Your task to perform on an android device: Add "dell xps" to the cart on newegg.com Image 0: 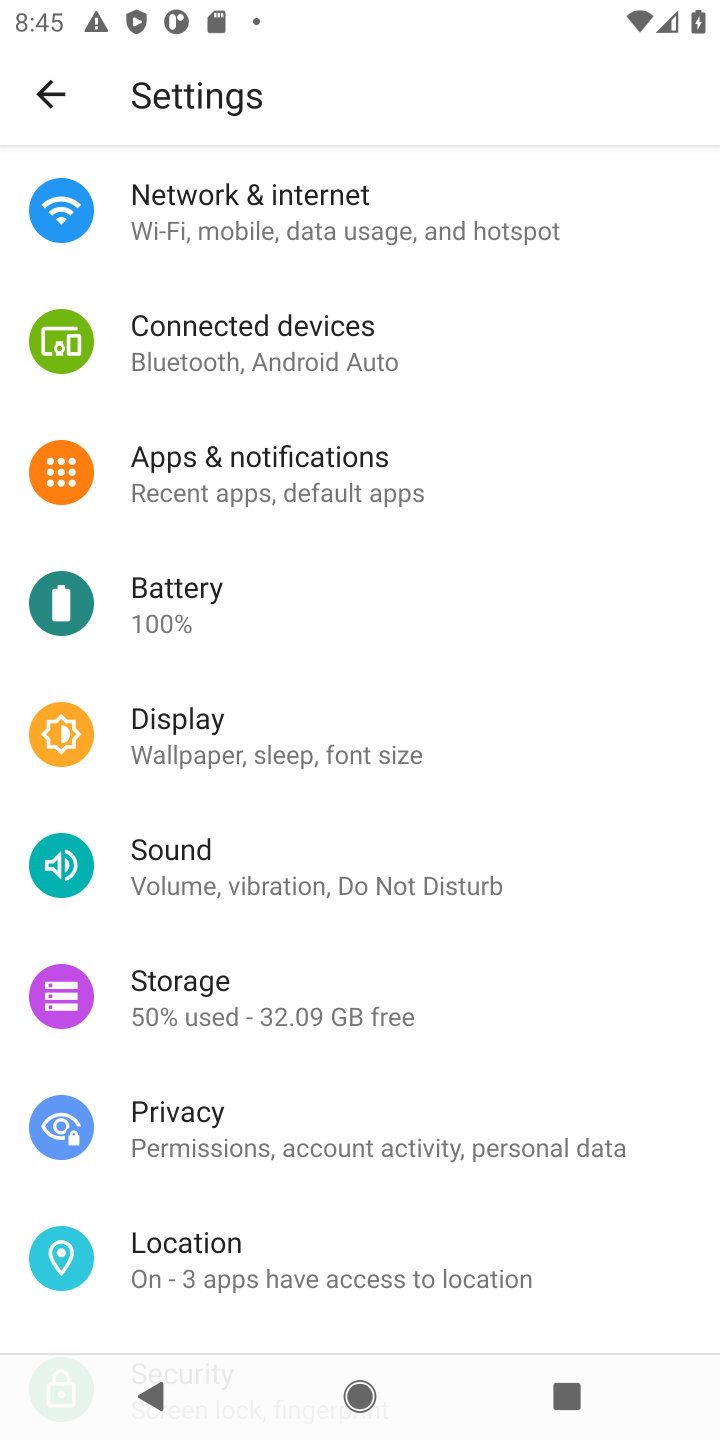
Step 0: press home button
Your task to perform on an android device: Add "dell xps" to the cart on newegg.com Image 1: 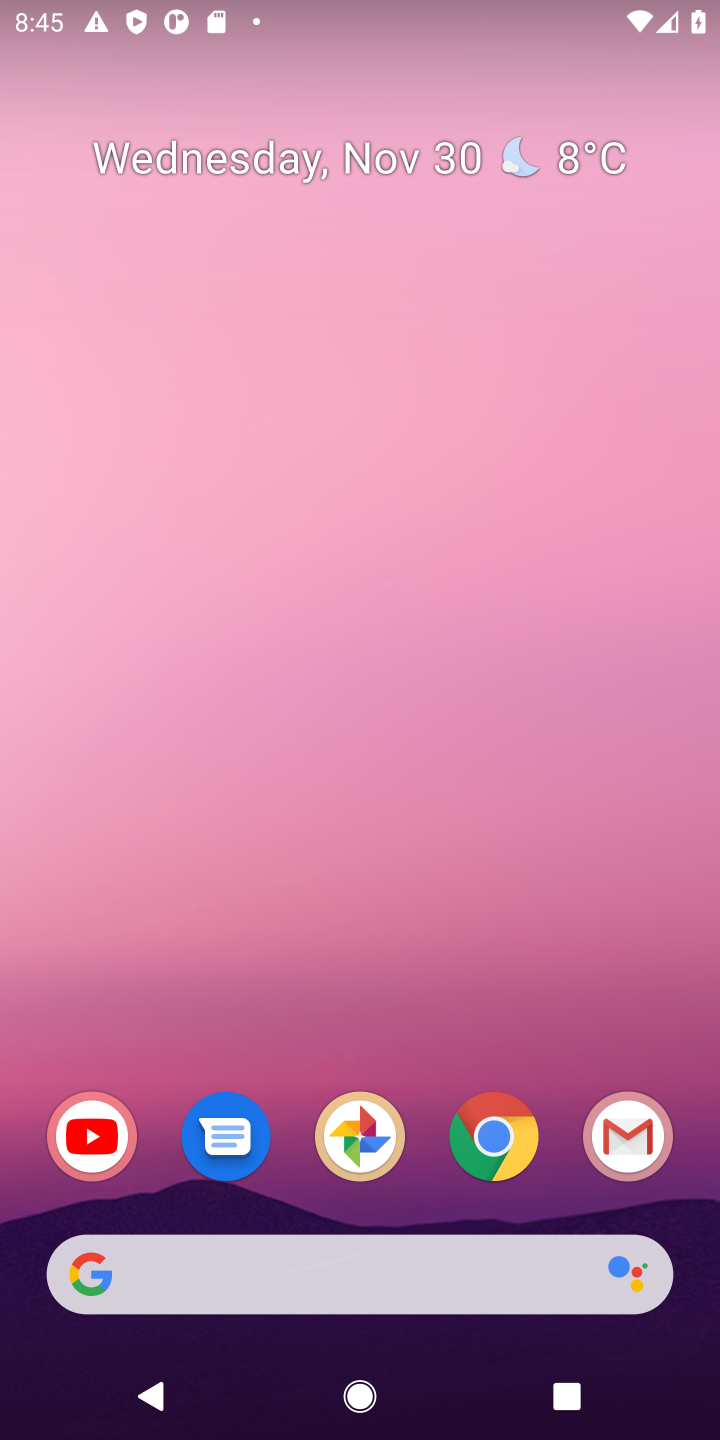
Step 1: click (504, 1145)
Your task to perform on an android device: Add "dell xps" to the cart on newegg.com Image 2: 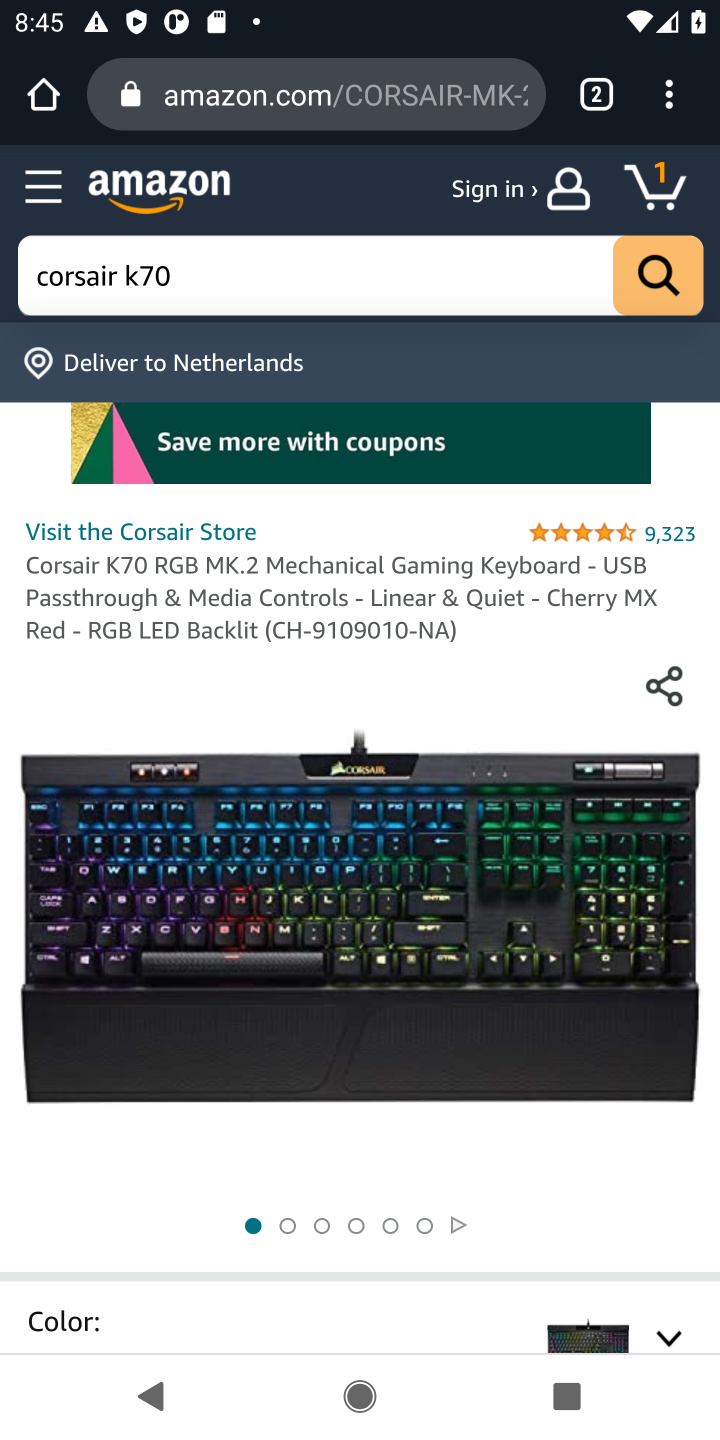
Step 2: click (292, 95)
Your task to perform on an android device: Add "dell xps" to the cart on newegg.com Image 3: 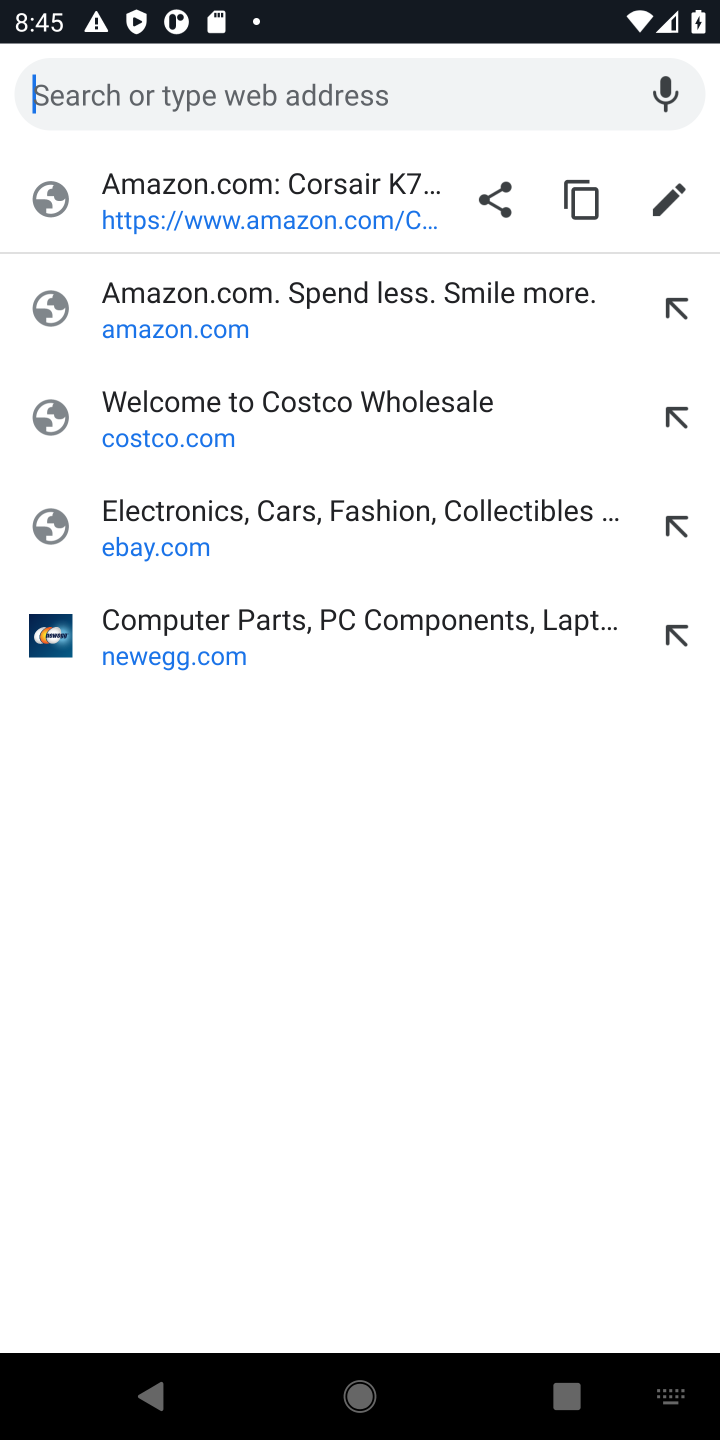
Step 3: click (122, 621)
Your task to perform on an android device: Add "dell xps" to the cart on newegg.com Image 4: 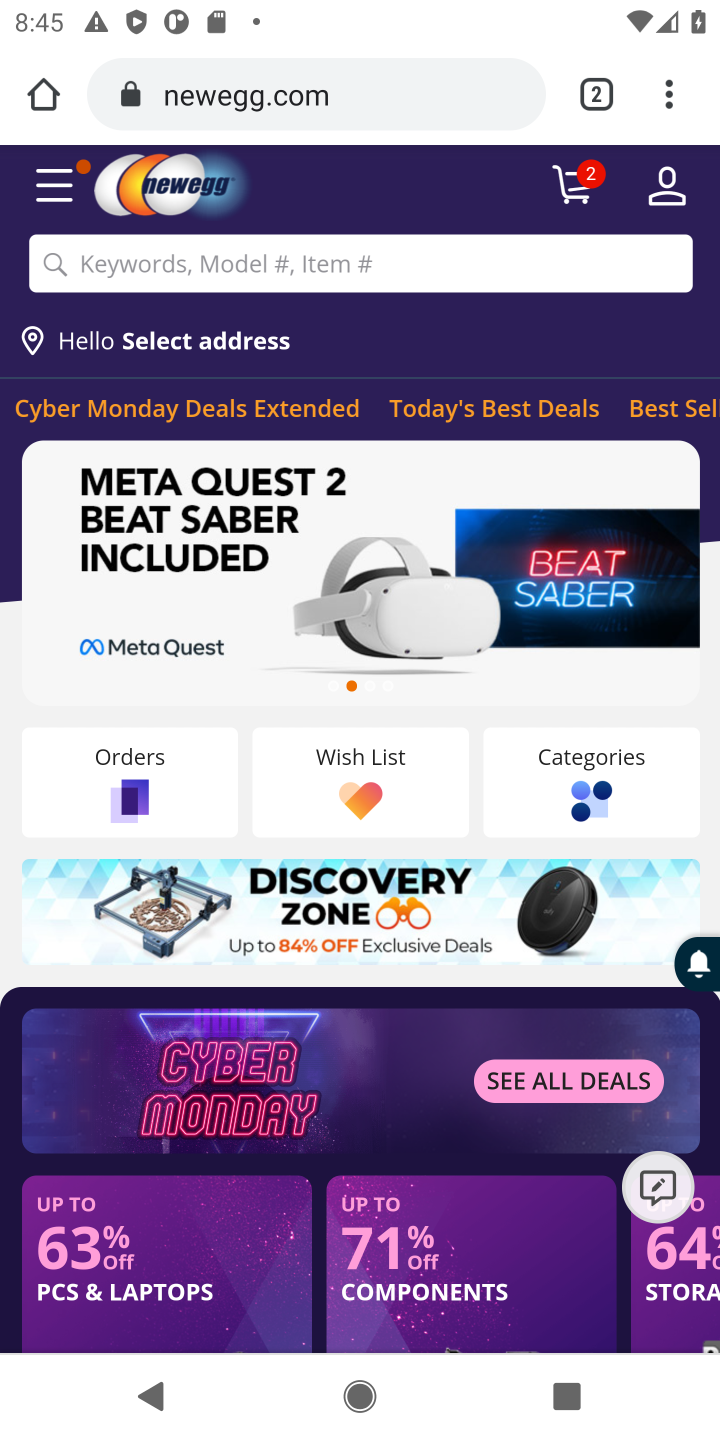
Step 4: click (291, 285)
Your task to perform on an android device: Add "dell xps" to the cart on newegg.com Image 5: 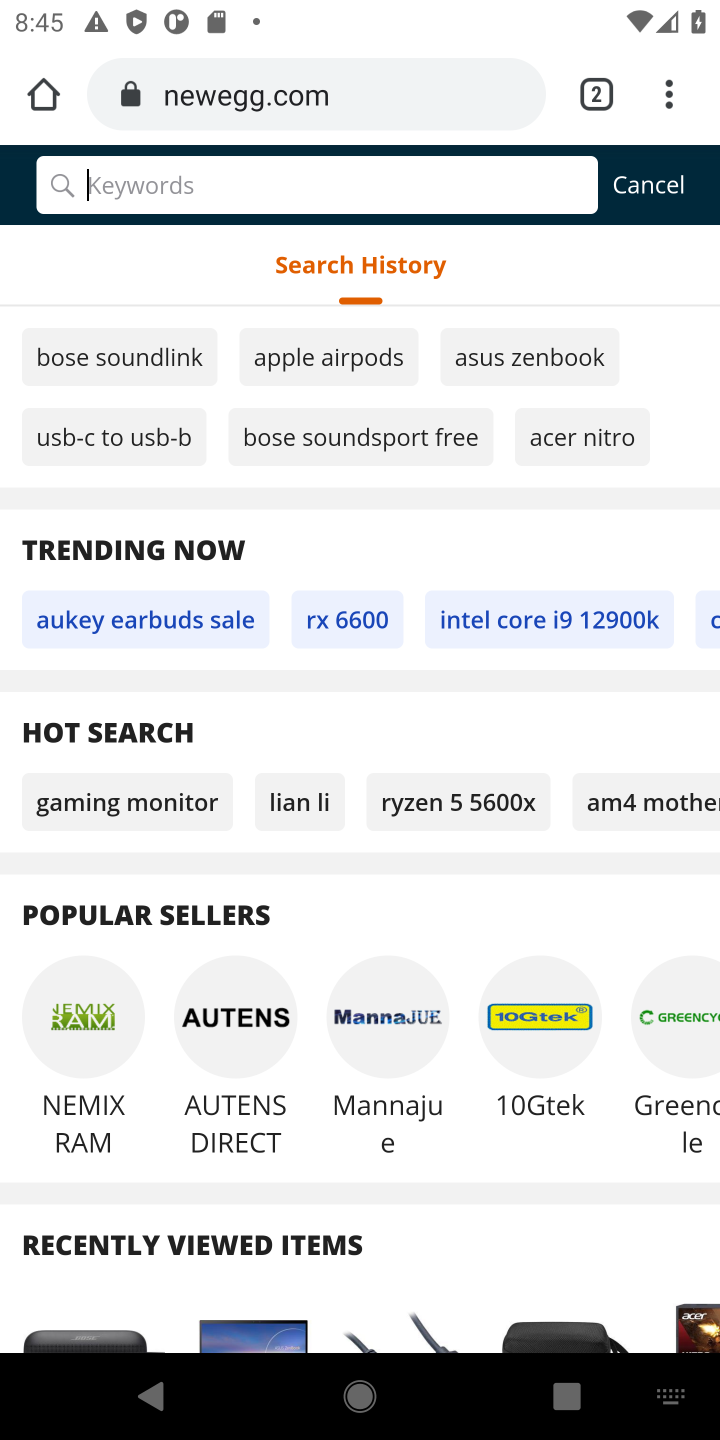
Step 5: type "dell xps"
Your task to perform on an android device: Add "dell xps" to the cart on newegg.com Image 6: 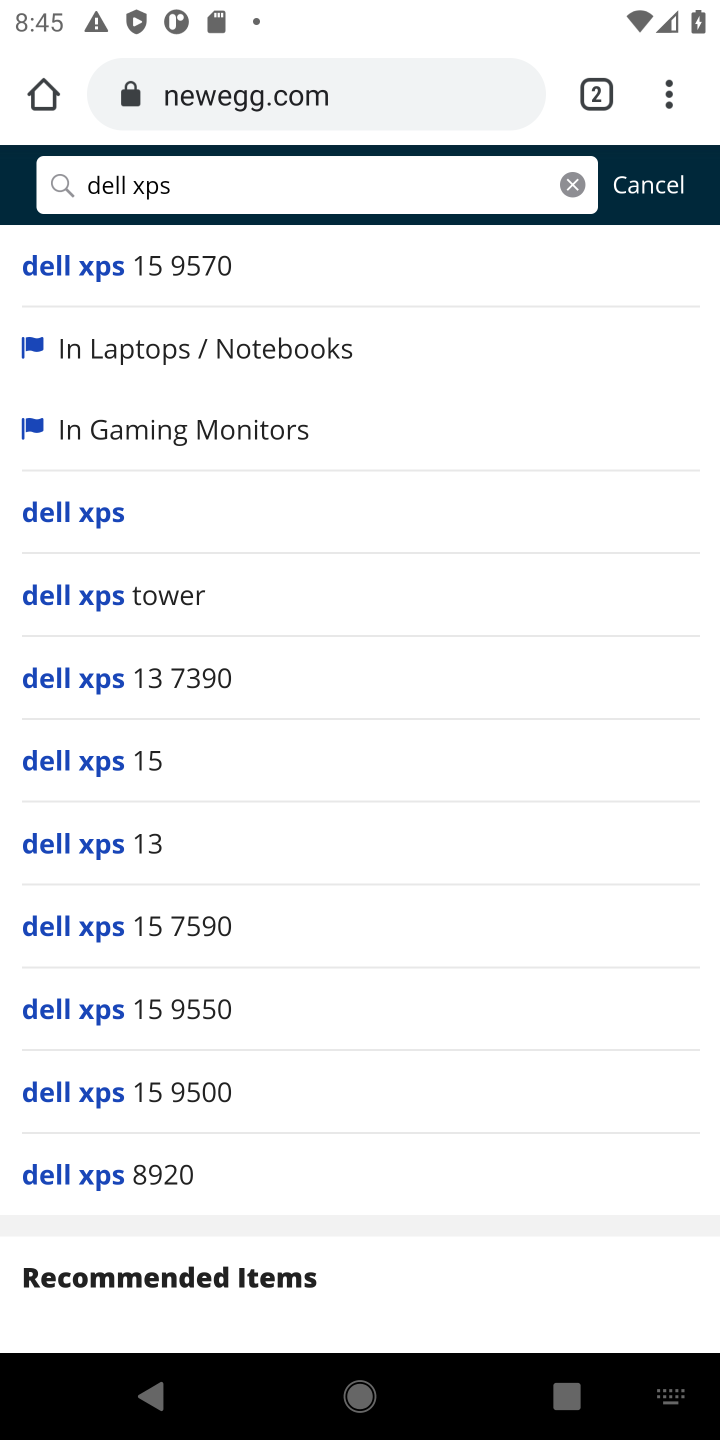
Step 6: click (96, 520)
Your task to perform on an android device: Add "dell xps" to the cart on newegg.com Image 7: 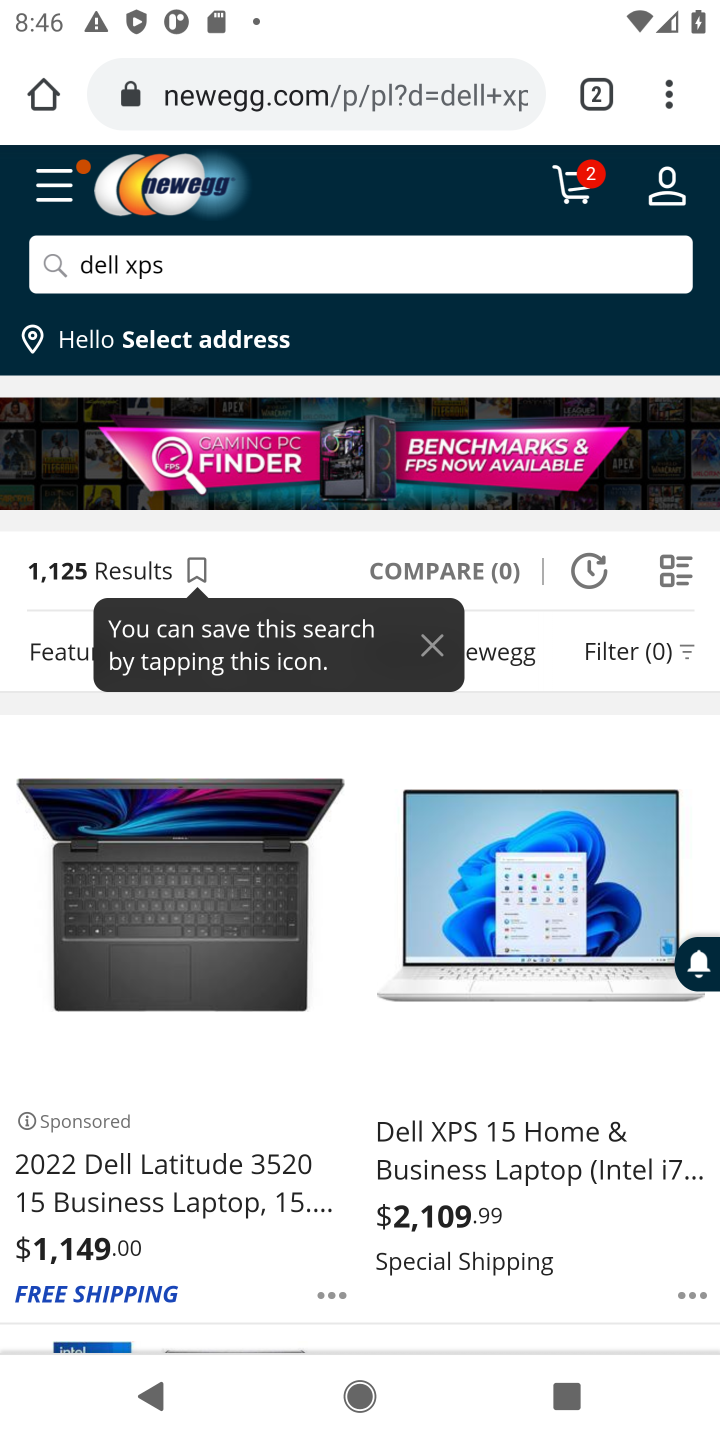
Step 7: click (482, 949)
Your task to perform on an android device: Add "dell xps" to the cart on newegg.com Image 8: 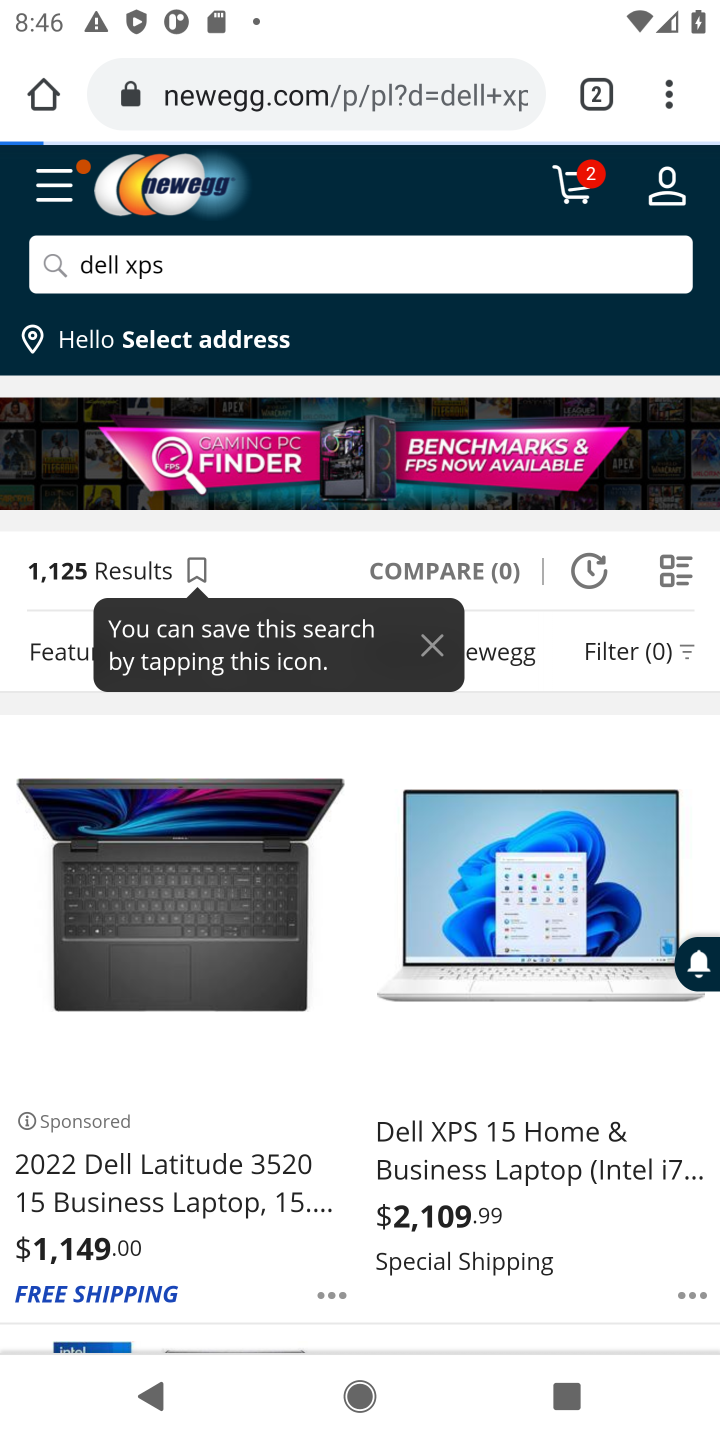
Step 8: click (436, 1148)
Your task to perform on an android device: Add "dell xps" to the cart on newegg.com Image 9: 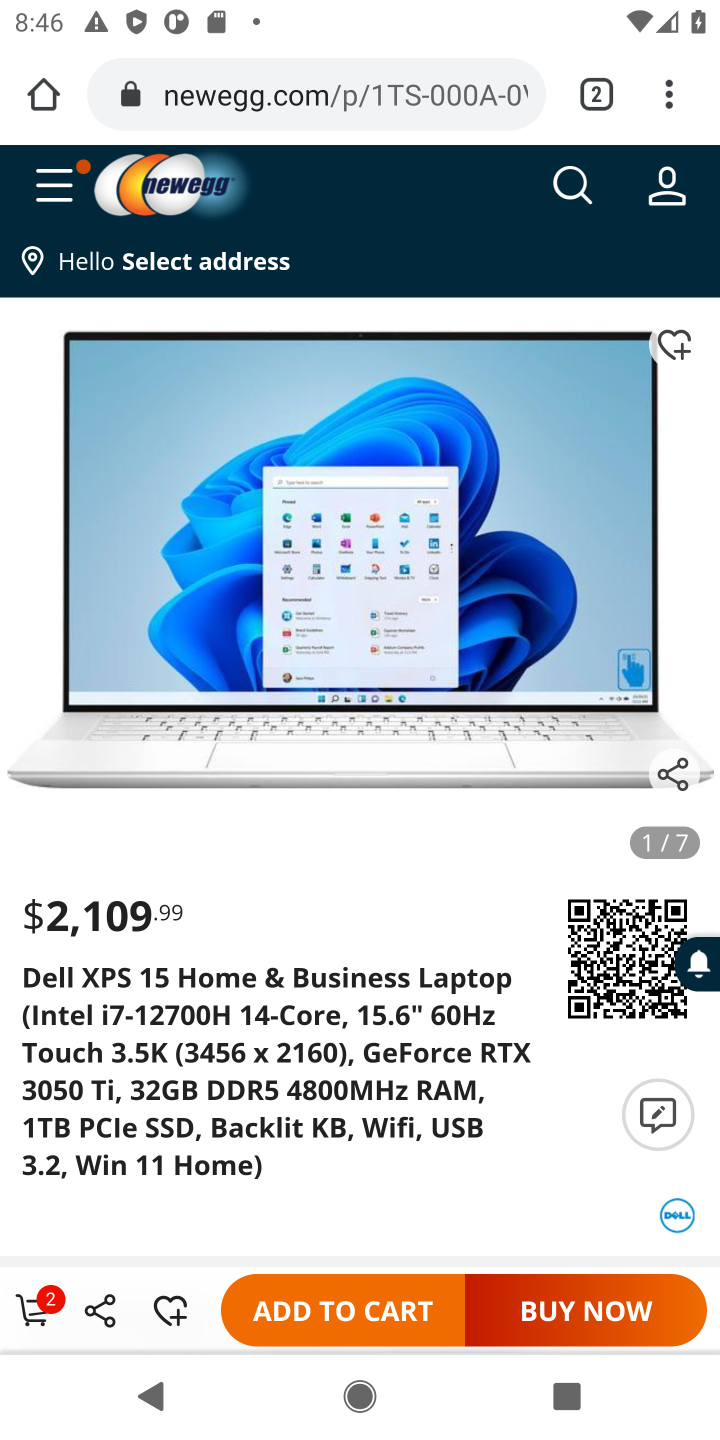
Step 9: click (320, 1297)
Your task to perform on an android device: Add "dell xps" to the cart on newegg.com Image 10: 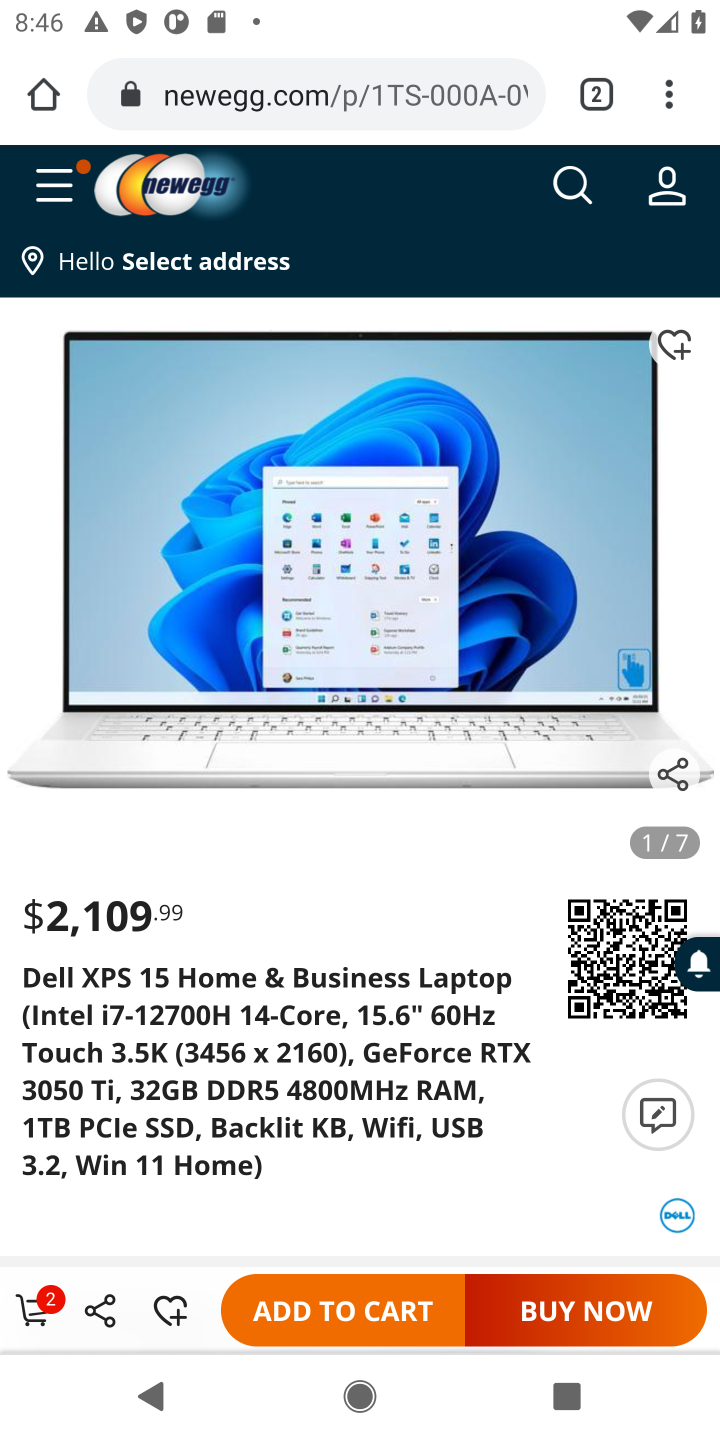
Step 10: click (324, 1325)
Your task to perform on an android device: Add "dell xps" to the cart on newegg.com Image 11: 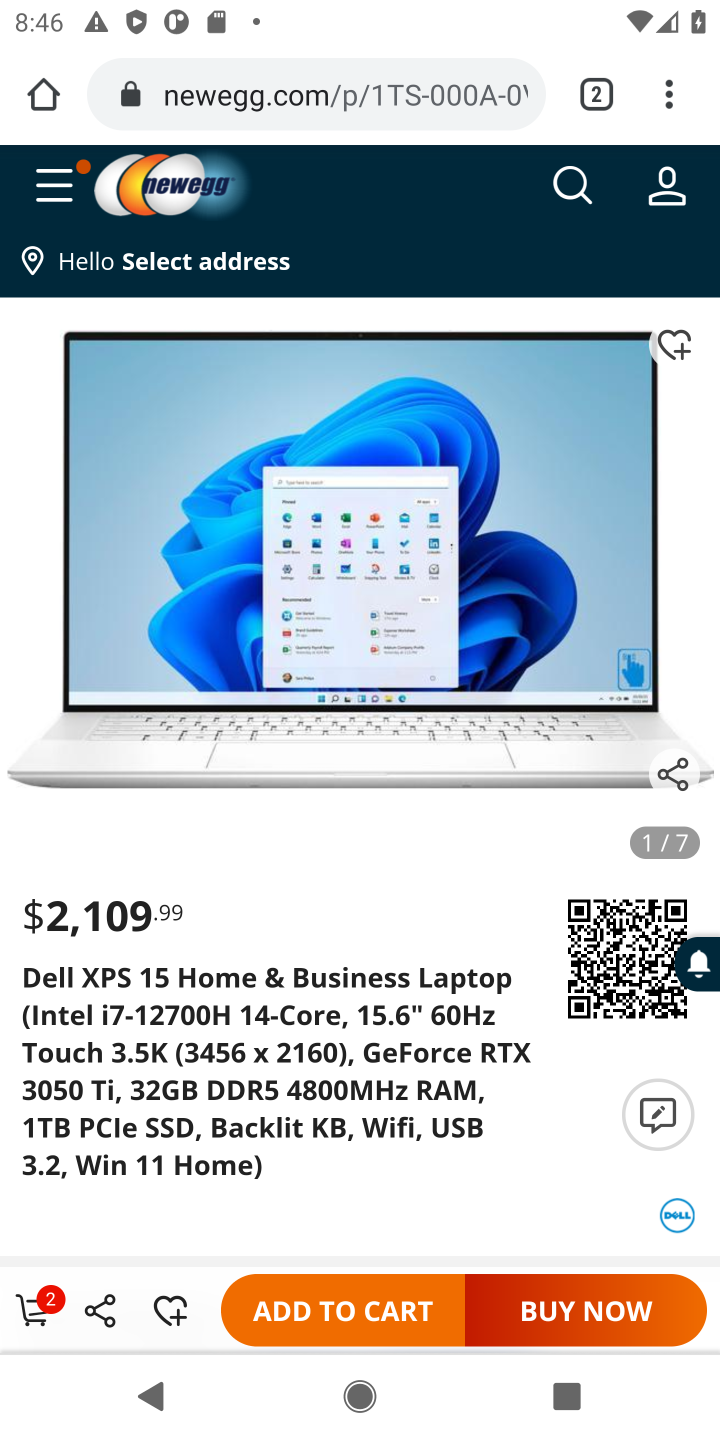
Step 11: click (339, 1319)
Your task to perform on an android device: Add "dell xps" to the cart on newegg.com Image 12: 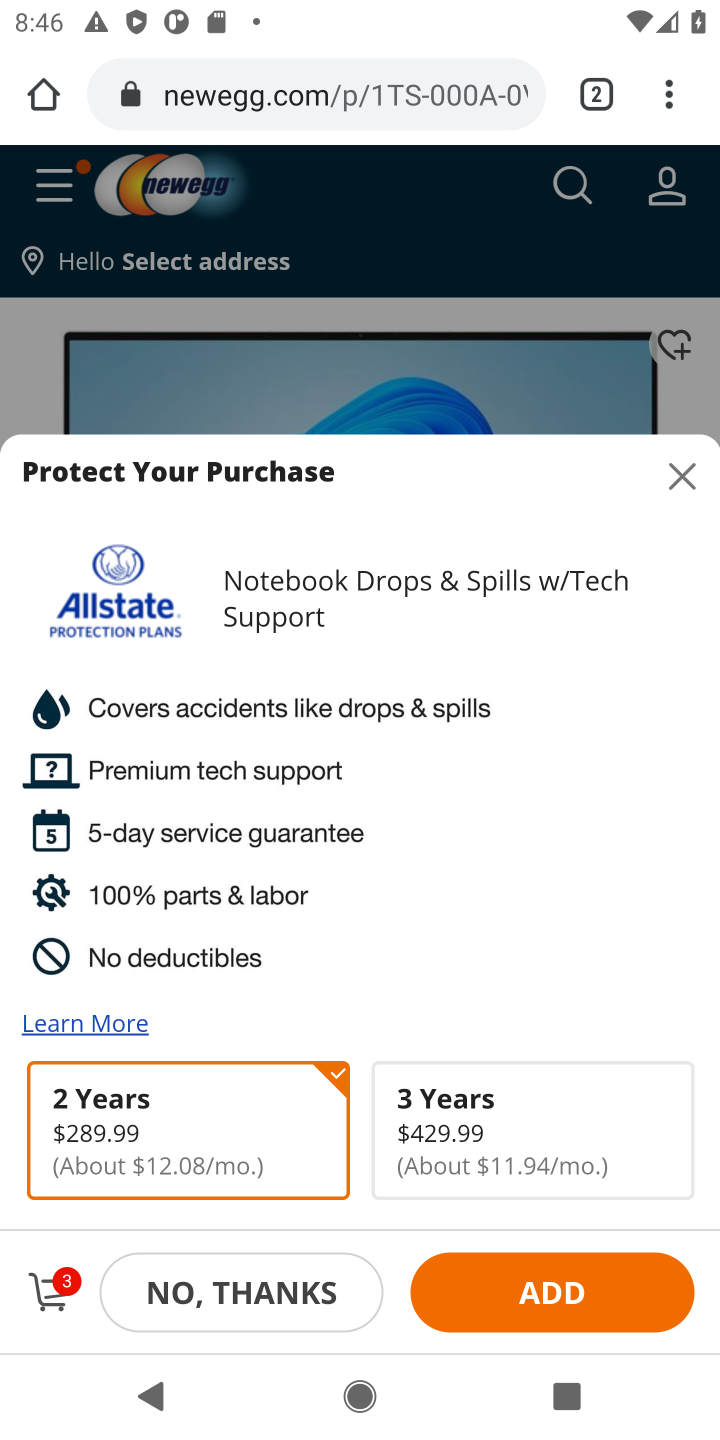
Step 12: task complete